Your task to perform on an android device: Open my contact list Image 0: 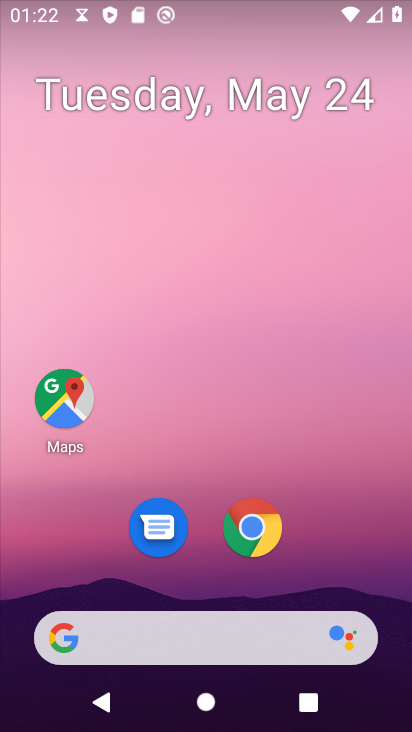
Step 0: press home button
Your task to perform on an android device: Open my contact list Image 1: 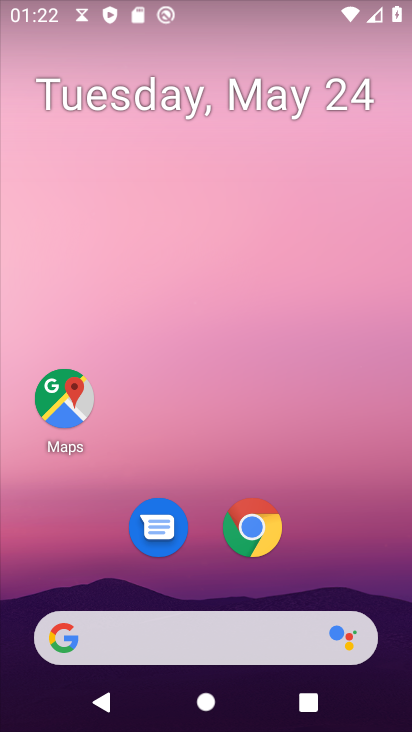
Step 1: drag from (189, 637) to (287, 69)
Your task to perform on an android device: Open my contact list Image 2: 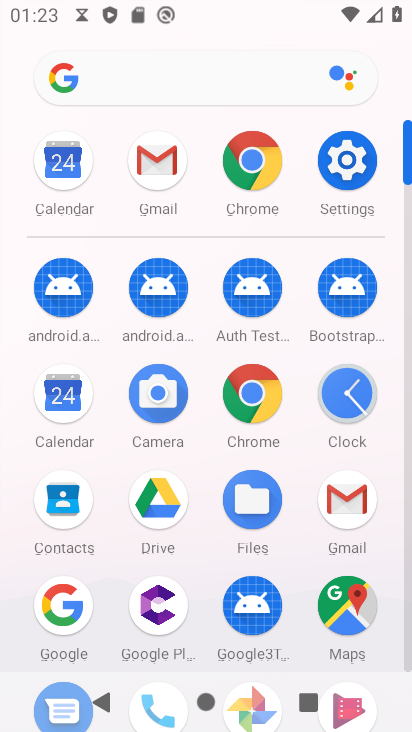
Step 2: click (68, 502)
Your task to perform on an android device: Open my contact list Image 3: 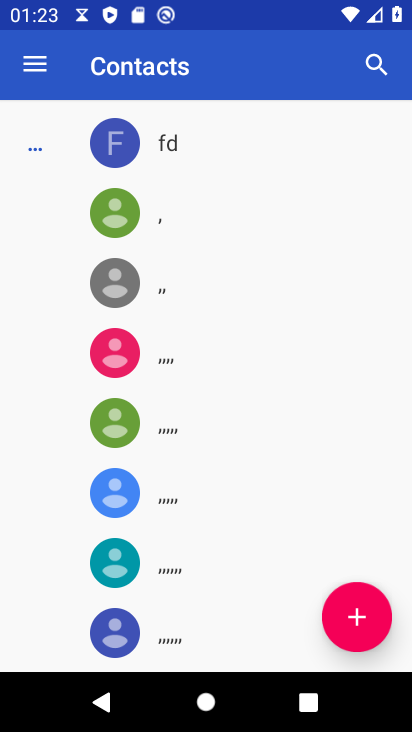
Step 3: task complete